Your task to perform on an android device: turn pop-ups off in chrome Image 0: 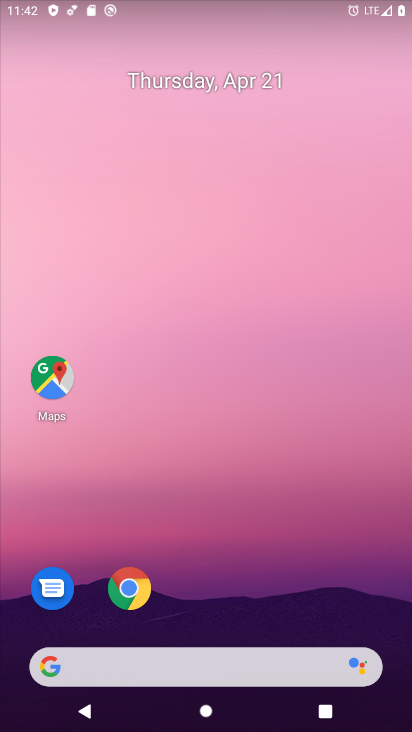
Step 0: drag from (235, 694) to (266, 144)
Your task to perform on an android device: turn pop-ups off in chrome Image 1: 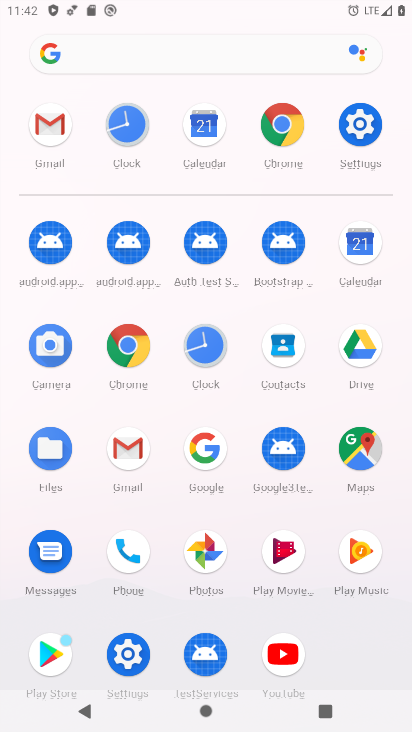
Step 1: click (278, 120)
Your task to perform on an android device: turn pop-ups off in chrome Image 2: 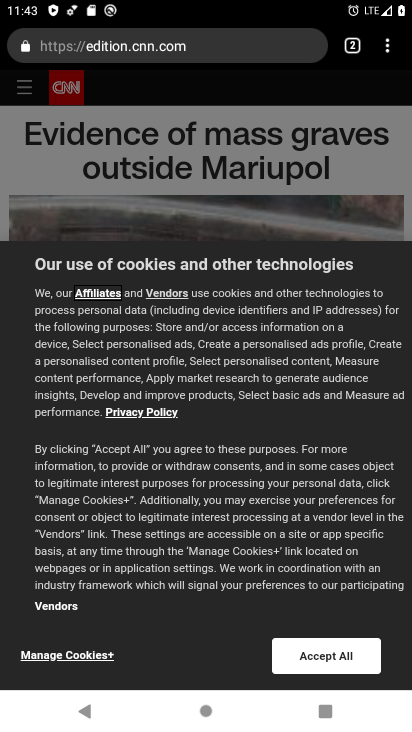
Step 2: click (389, 58)
Your task to perform on an android device: turn pop-ups off in chrome Image 3: 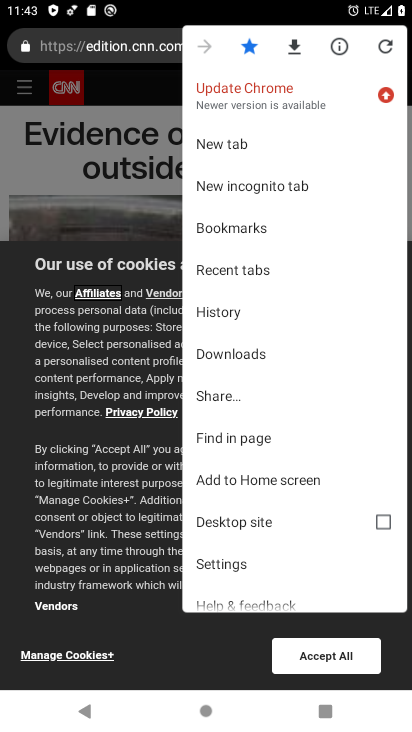
Step 3: click (228, 560)
Your task to perform on an android device: turn pop-ups off in chrome Image 4: 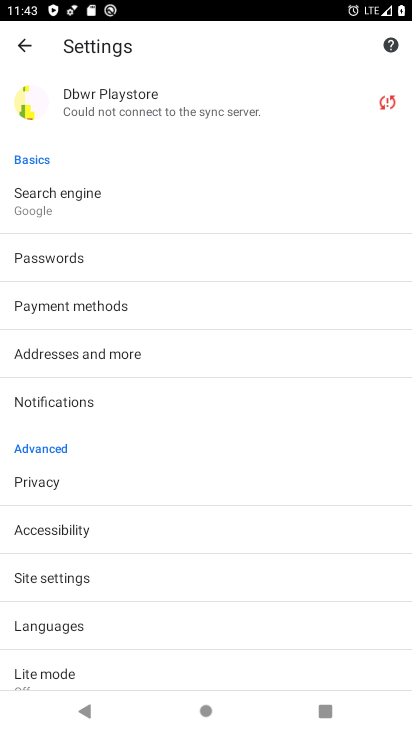
Step 4: click (99, 575)
Your task to perform on an android device: turn pop-ups off in chrome Image 5: 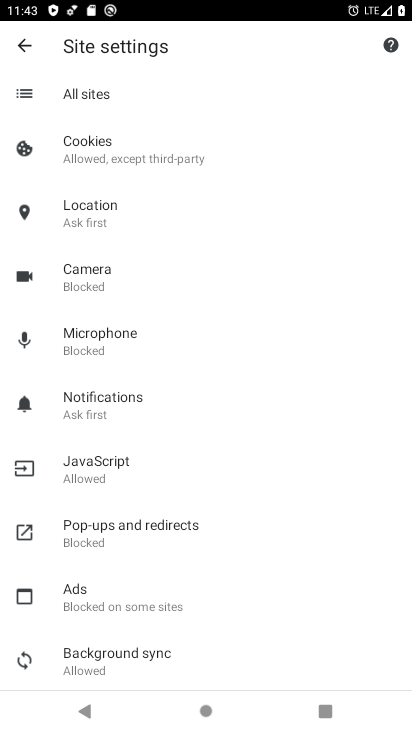
Step 5: click (124, 530)
Your task to perform on an android device: turn pop-ups off in chrome Image 6: 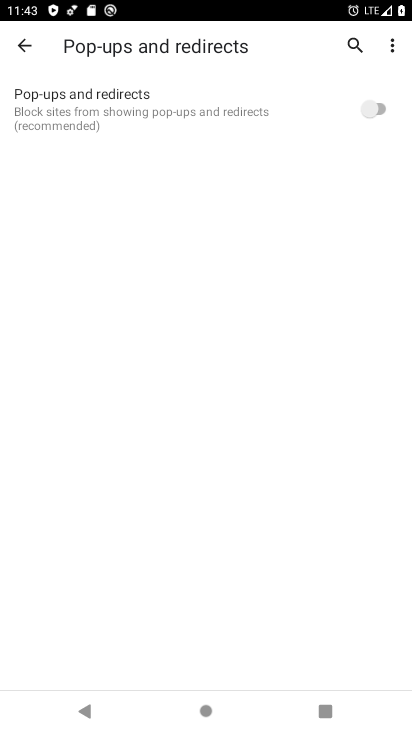
Step 6: click (354, 93)
Your task to perform on an android device: turn pop-ups off in chrome Image 7: 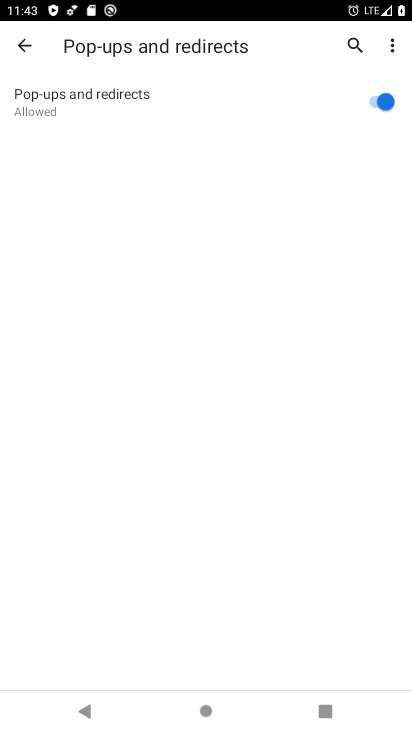
Step 7: click (354, 93)
Your task to perform on an android device: turn pop-ups off in chrome Image 8: 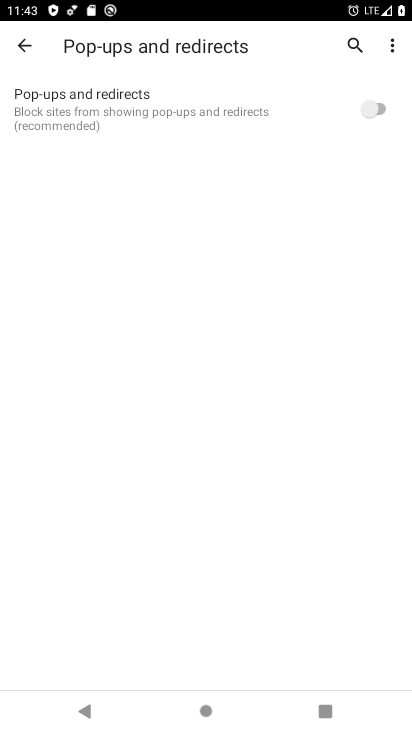
Step 8: task complete